Your task to perform on an android device: check android version Image 0: 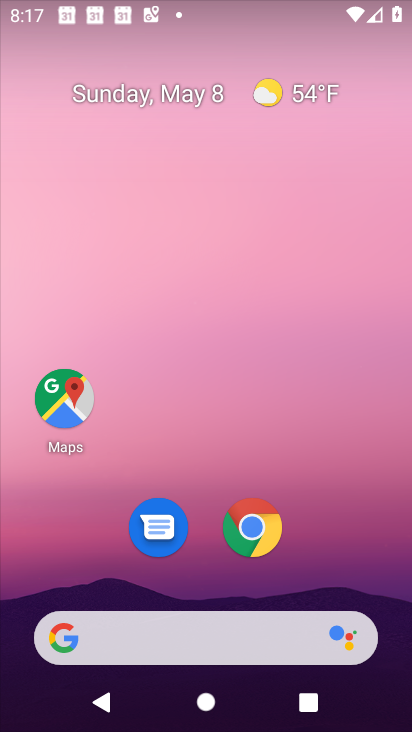
Step 0: drag from (311, 577) to (309, 21)
Your task to perform on an android device: check android version Image 1: 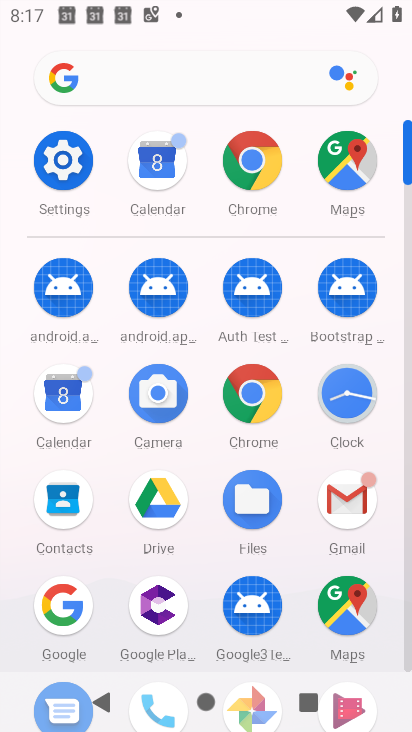
Step 1: click (62, 163)
Your task to perform on an android device: check android version Image 2: 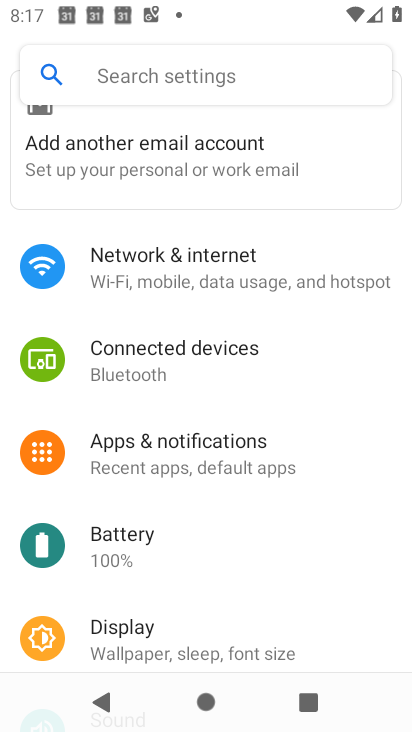
Step 2: drag from (224, 561) to (230, 301)
Your task to perform on an android device: check android version Image 3: 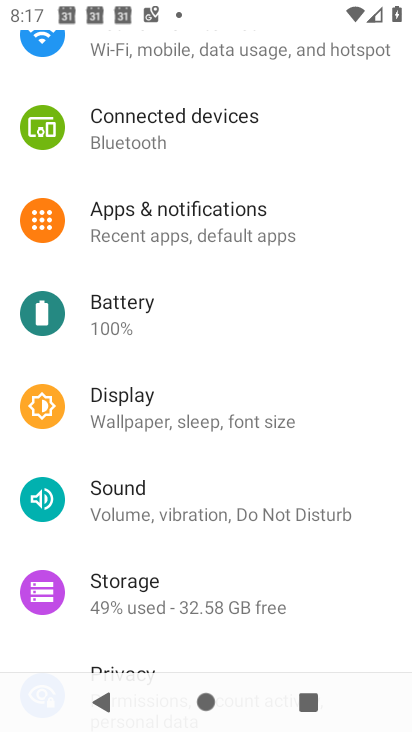
Step 3: drag from (301, 566) to (298, 373)
Your task to perform on an android device: check android version Image 4: 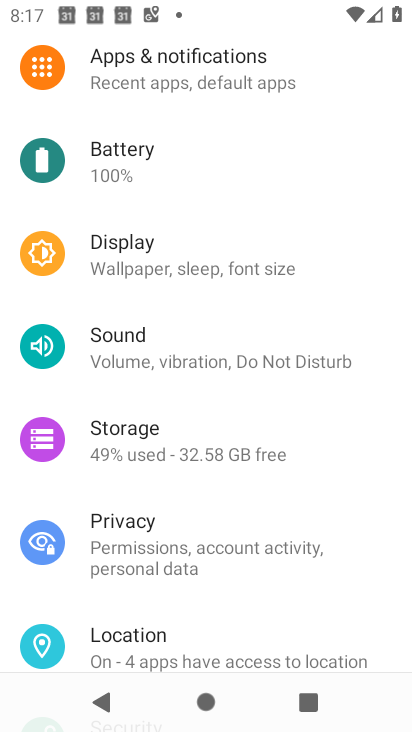
Step 4: drag from (268, 615) to (250, 351)
Your task to perform on an android device: check android version Image 5: 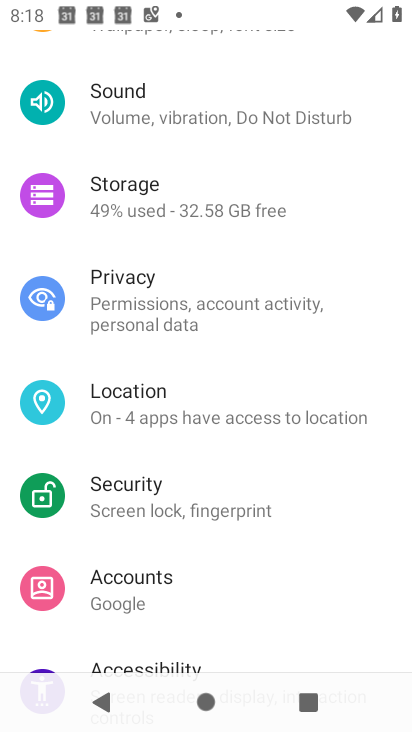
Step 5: drag from (232, 613) to (235, 370)
Your task to perform on an android device: check android version Image 6: 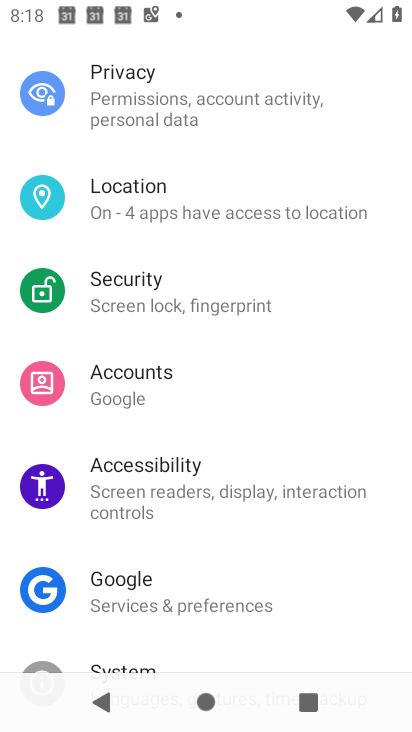
Step 6: drag from (275, 614) to (282, 454)
Your task to perform on an android device: check android version Image 7: 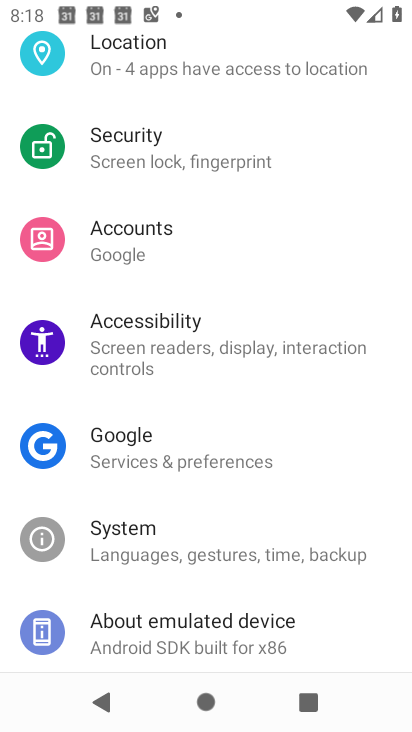
Step 7: click (258, 626)
Your task to perform on an android device: check android version Image 8: 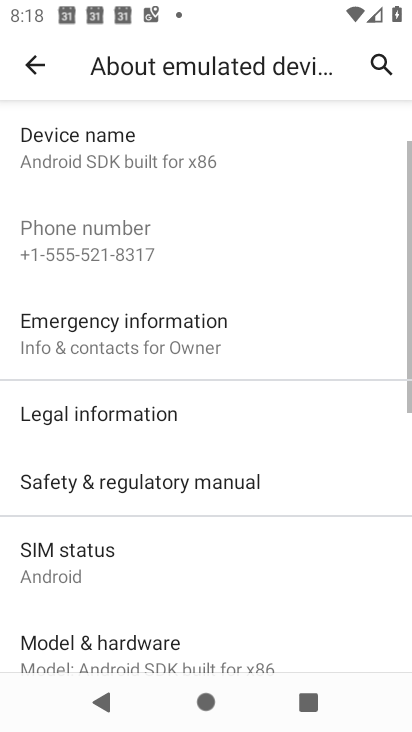
Step 8: drag from (247, 633) to (297, 378)
Your task to perform on an android device: check android version Image 9: 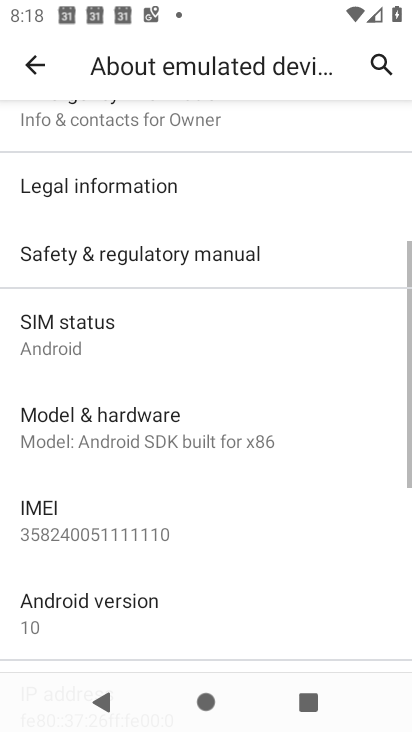
Step 9: click (175, 604)
Your task to perform on an android device: check android version Image 10: 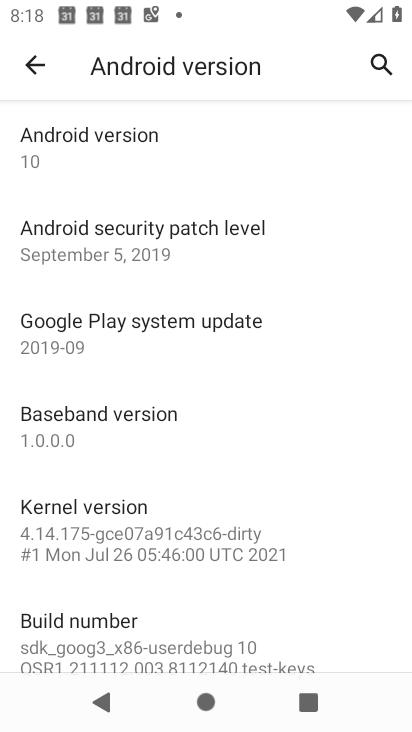
Step 10: click (209, 142)
Your task to perform on an android device: check android version Image 11: 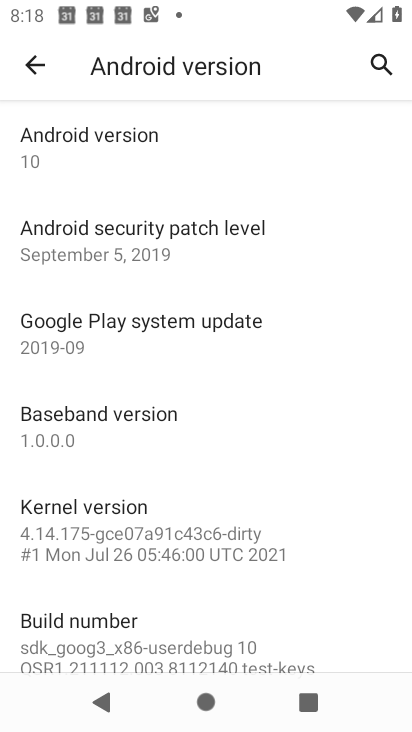
Step 11: task complete